Your task to perform on an android device: turn on the 24-hour format for clock Image 0: 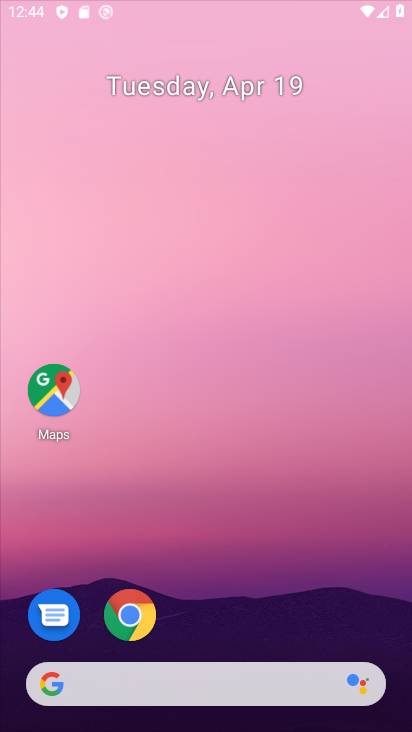
Step 0: drag from (264, 612) to (302, 172)
Your task to perform on an android device: turn on the 24-hour format for clock Image 1: 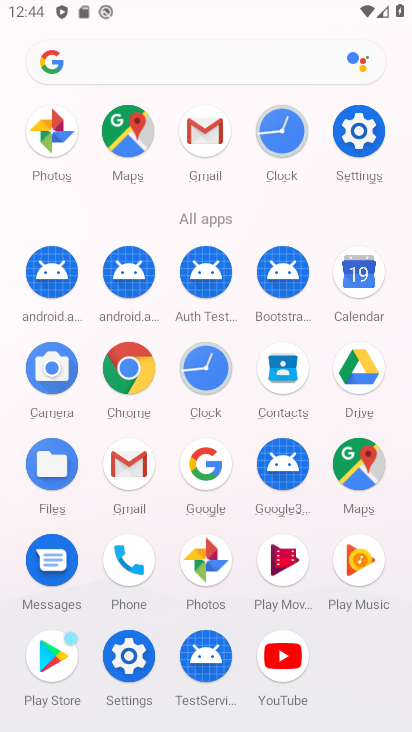
Step 1: click (289, 136)
Your task to perform on an android device: turn on the 24-hour format for clock Image 2: 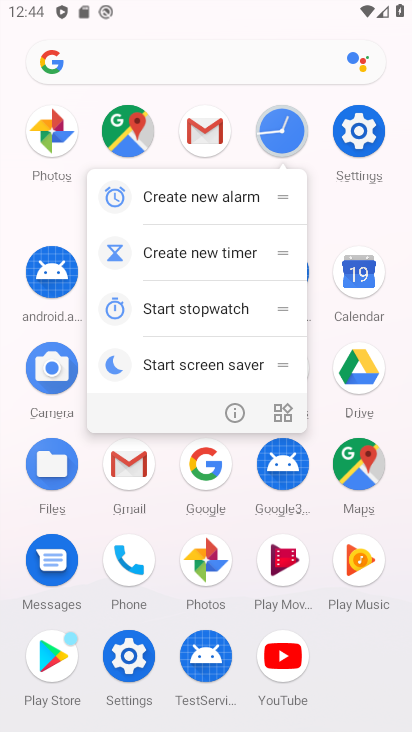
Step 2: click (279, 142)
Your task to perform on an android device: turn on the 24-hour format for clock Image 3: 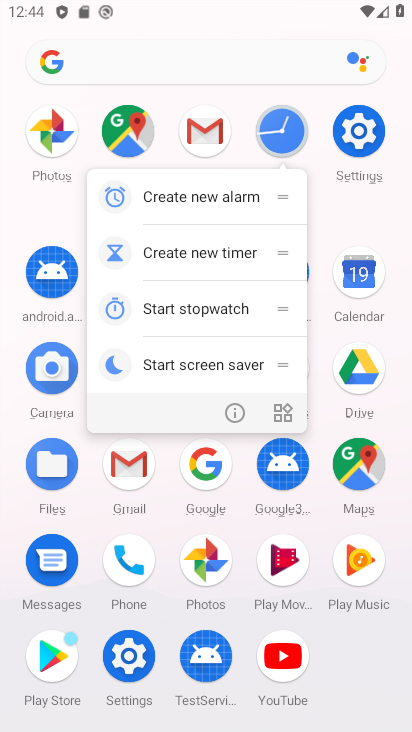
Step 3: click (286, 141)
Your task to perform on an android device: turn on the 24-hour format for clock Image 4: 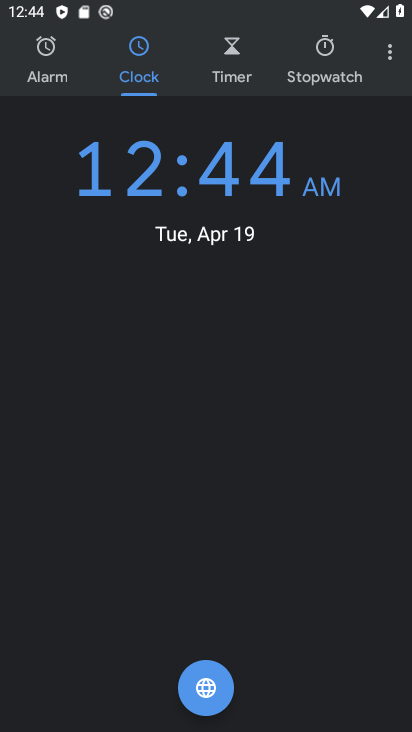
Step 4: click (392, 48)
Your task to perform on an android device: turn on the 24-hour format for clock Image 5: 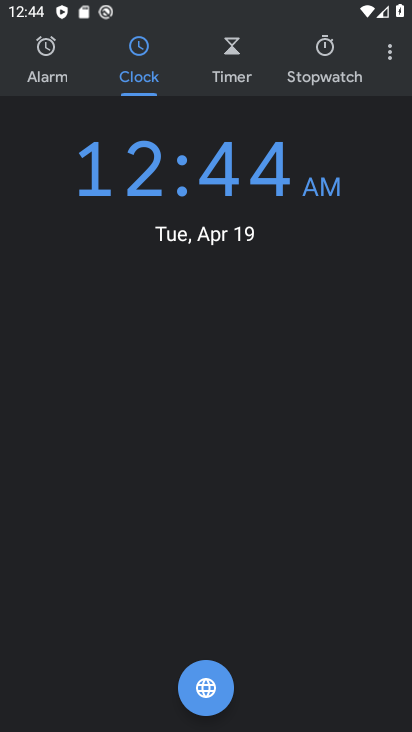
Step 5: drag from (389, 61) to (366, 89)
Your task to perform on an android device: turn on the 24-hour format for clock Image 6: 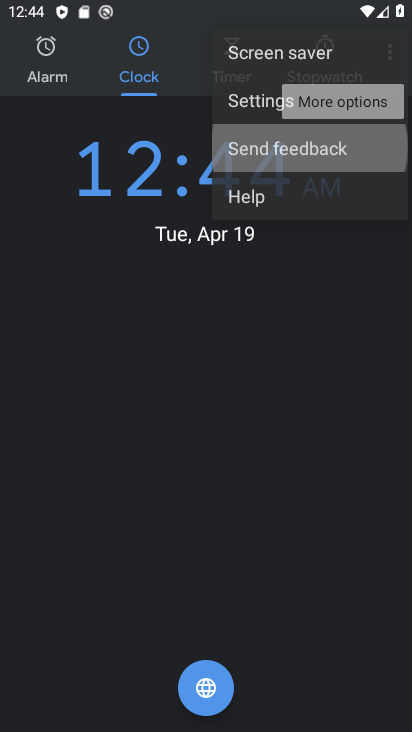
Step 6: click (393, 62)
Your task to perform on an android device: turn on the 24-hour format for clock Image 7: 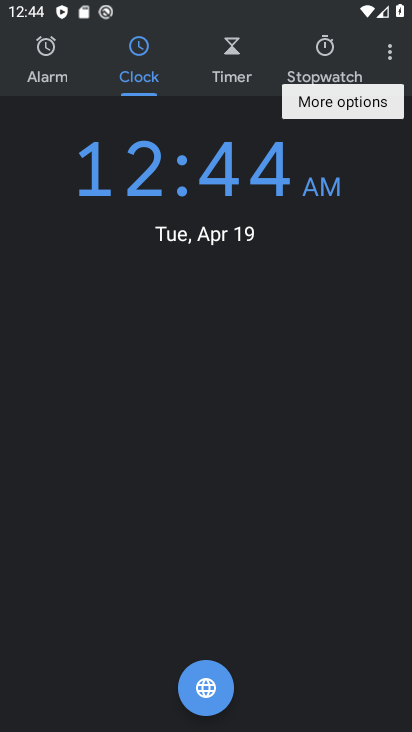
Step 7: click (385, 59)
Your task to perform on an android device: turn on the 24-hour format for clock Image 8: 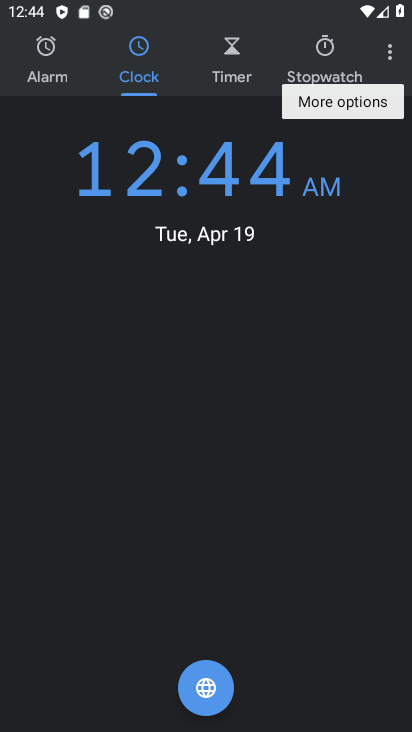
Step 8: click (361, 103)
Your task to perform on an android device: turn on the 24-hour format for clock Image 9: 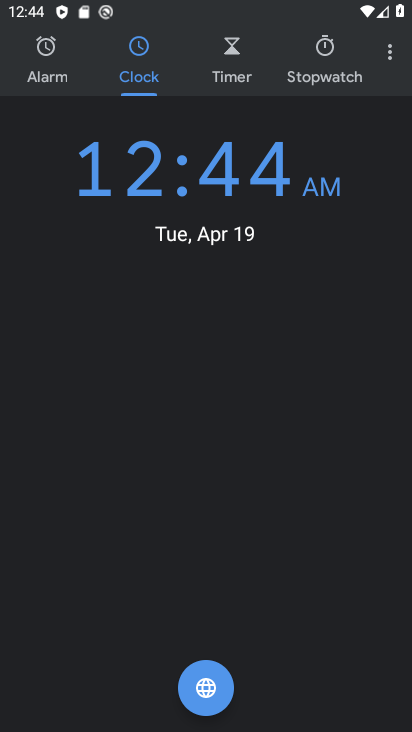
Step 9: click (393, 60)
Your task to perform on an android device: turn on the 24-hour format for clock Image 10: 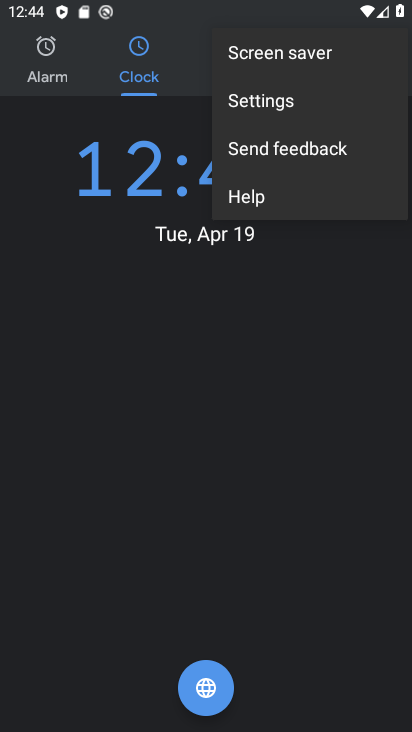
Step 10: click (316, 97)
Your task to perform on an android device: turn on the 24-hour format for clock Image 11: 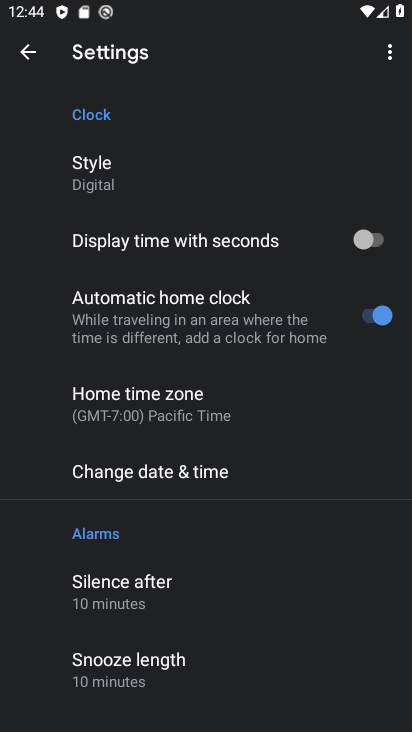
Step 11: drag from (192, 618) to (230, 238)
Your task to perform on an android device: turn on the 24-hour format for clock Image 12: 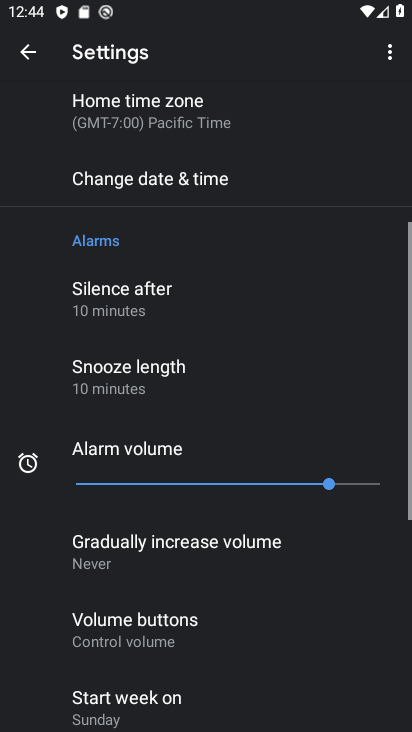
Step 12: drag from (182, 681) to (202, 340)
Your task to perform on an android device: turn on the 24-hour format for clock Image 13: 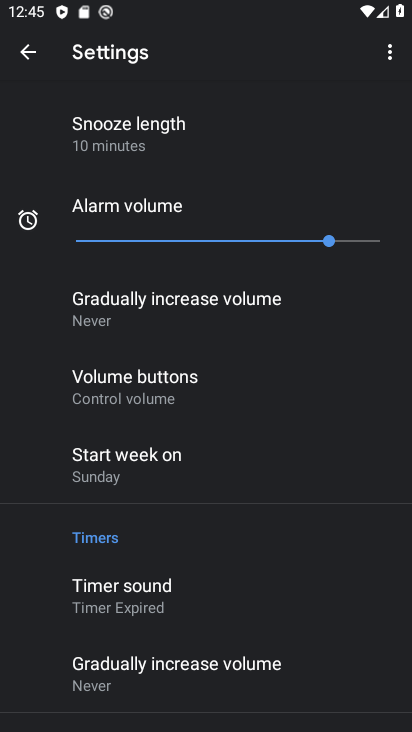
Step 13: drag from (167, 569) to (167, 688)
Your task to perform on an android device: turn on the 24-hour format for clock Image 14: 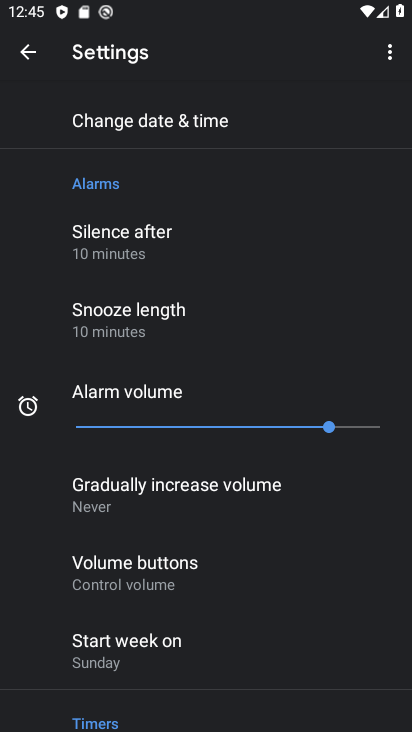
Step 14: click (177, 131)
Your task to perform on an android device: turn on the 24-hour format for clock Image 15: 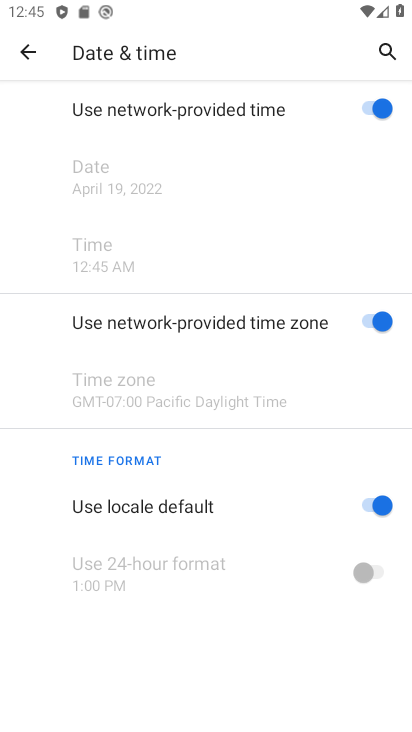
Step 15: click (380, 498)
Your task to perform on an android device: turn on the 24-hour format for clock Image 16: 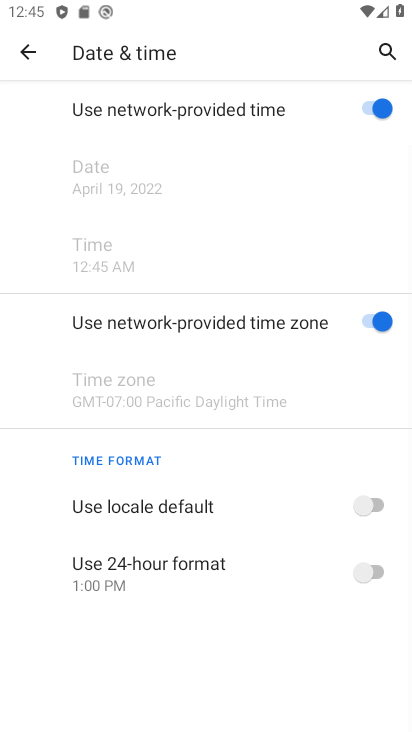
Step 16: click (379, 581)
Your task to perform on an android device: turn on the 24-hour format for clock Image 17: 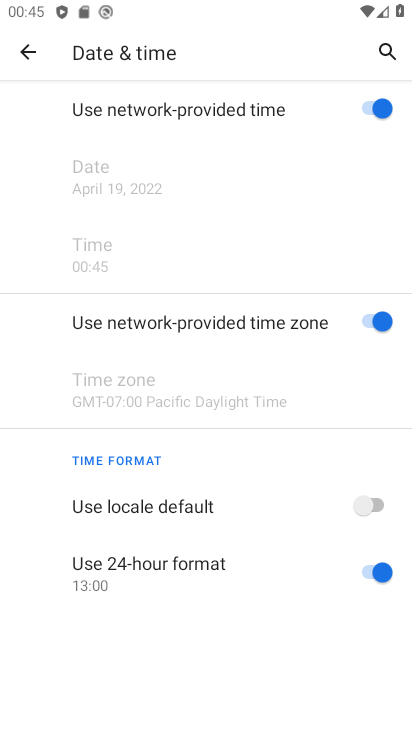
Step 17: task complete